Your task to perform on an android device: Turn on the flashlight Image 0: 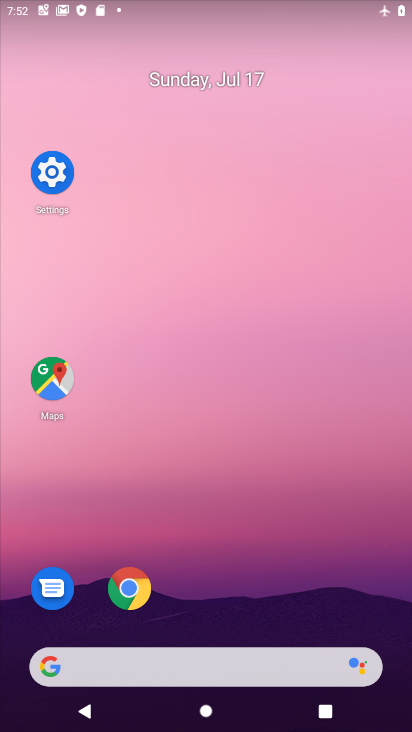
Step 0: drag from (236, 28) to (264, 338)
Your task to perform on an android device: Turn on the flashlight Image 1: 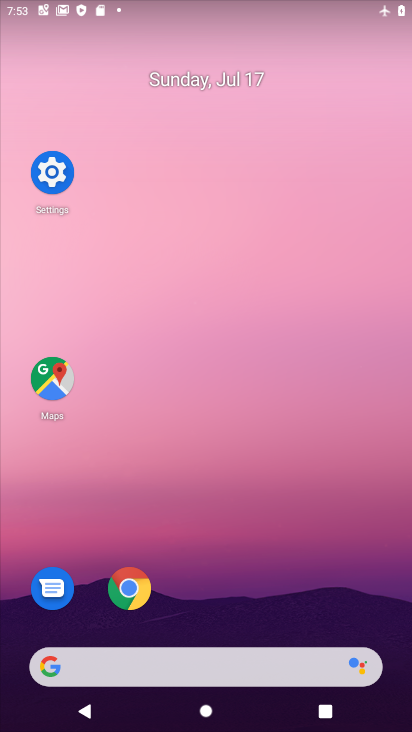
Step 1: task complete